Your task to perform on an android device: check storage Image 0: 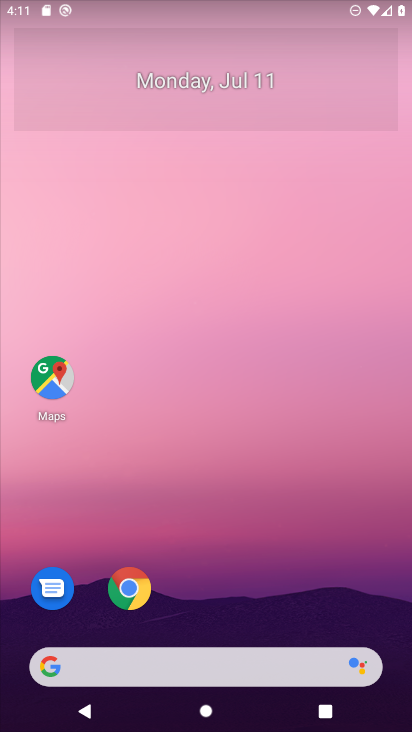
Step 0: press home button
Your task to perform on an android device: check storage Image 1: 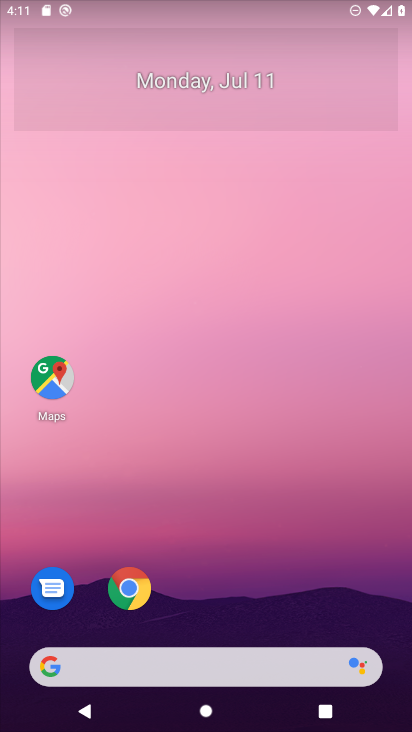
Step 1: drag from (302, 576) to (268, 124)
Your task to perform on an android device: check storage Image 2: 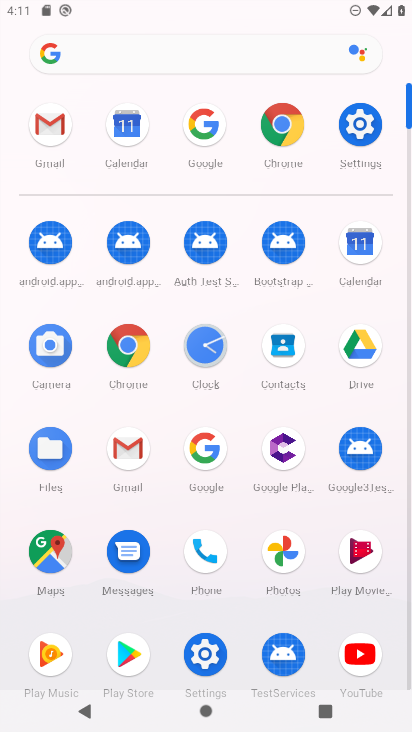
Step 2: click (362, 119)
Your task to perform on an android device: check storage Image 3: 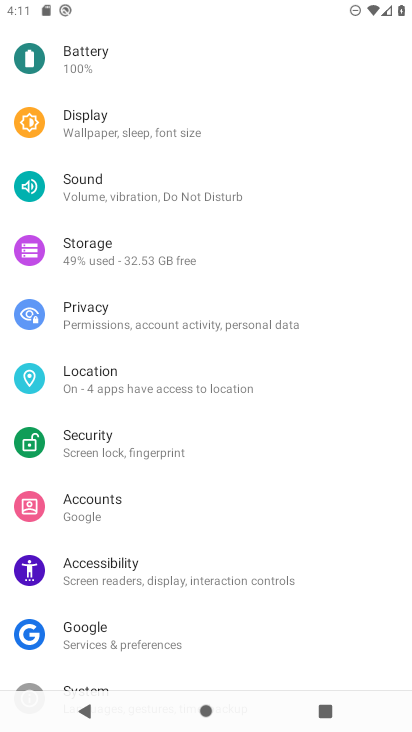
Step 3: click (93, 237)
Your task to perform on an android device: check storage Image 4: 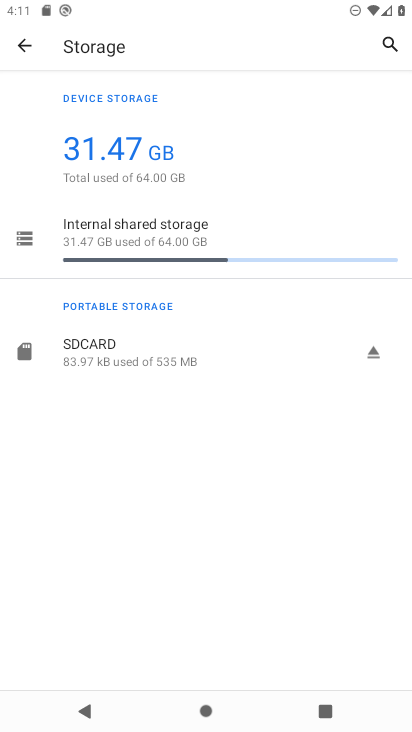
Step 4: task complete